Your task to perform on an android device: set an alarm Image 0: 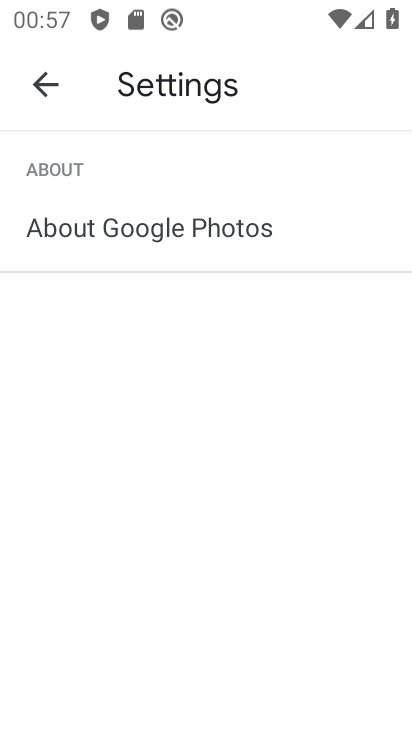
Step 0: press home button
Your task to perform on an android device: set an alarm Image 1: 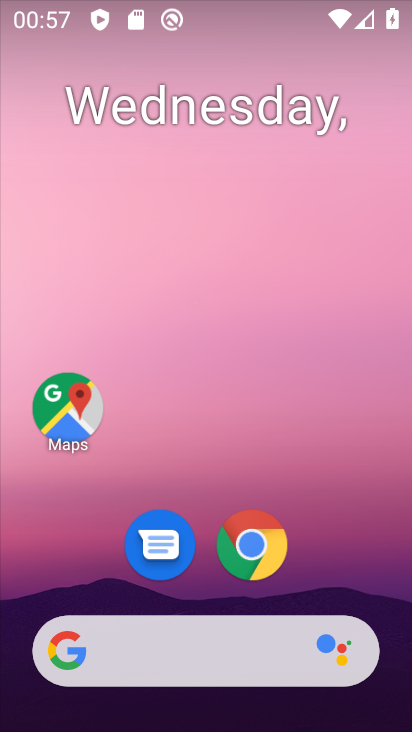
Step 1: drag from (348, 453) to (325, 103)
Your task to perform on an android device: set an alarm Image 2: 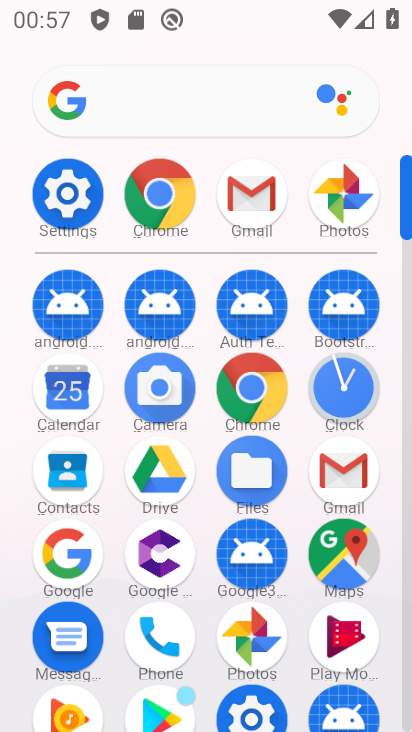
Step 2: click (356, 384)
Your task to perform on an android device: set an alarm Image 3: 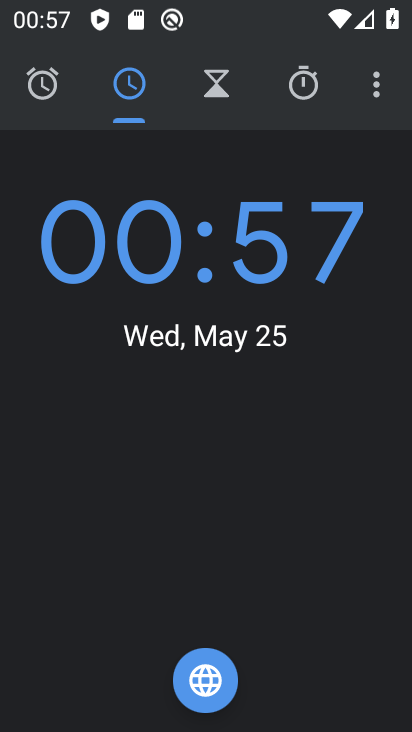
Step 3: click (32, 93)
Your task to perform on an android device: set an alarm Image 4: 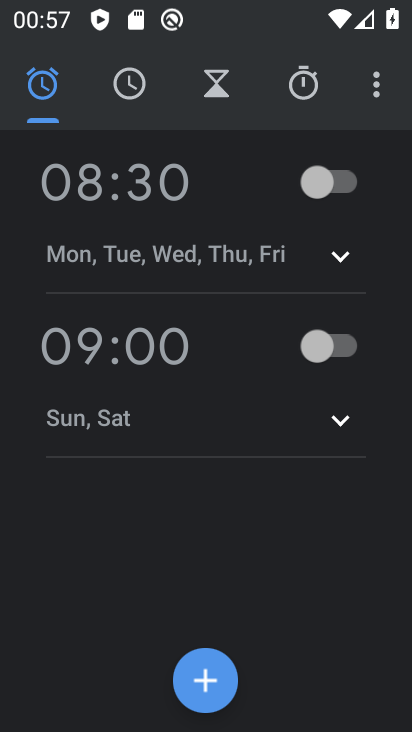
Step 4: click (212, 679)
Your task to perform on an android device: set an alarm Image 5: 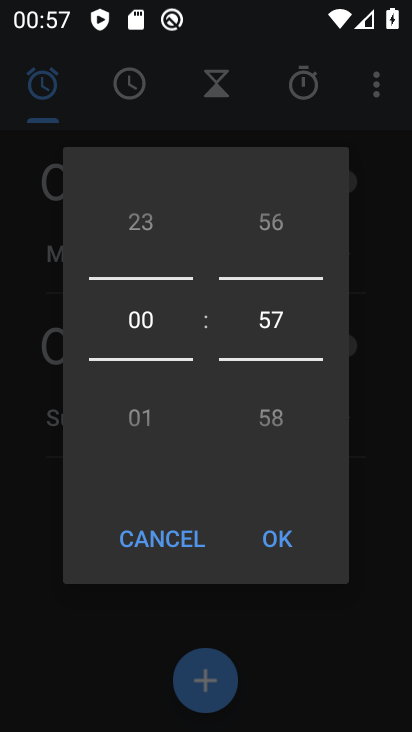
Step 5: click (290, 544)
Your task to perform on an android device: set an alarm Image 6: 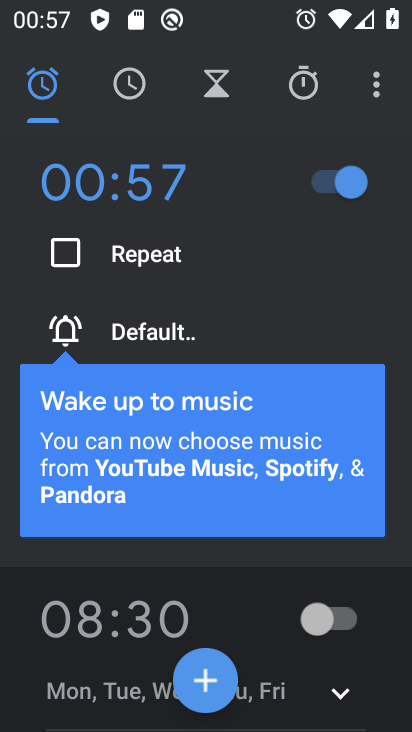
Step 6: task complete